Your task to perform on an android device: Do I have any events today? Image 0: 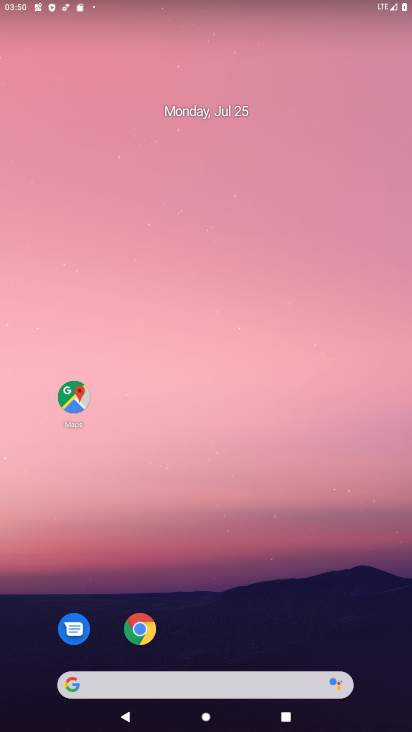
Step 0: drag from (278, 625) to (287, 6)
Your task to perform on an android device: Do I have any events today? Image 1: 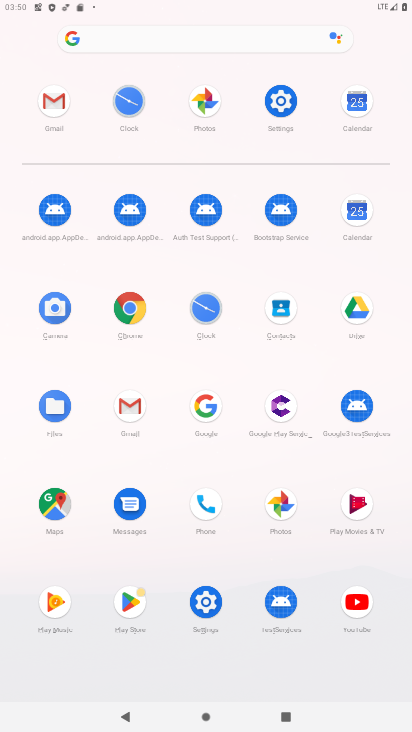
Step 1: click (349, 136)
Your task to perform on an android device: Do I have any events today? Image 2: 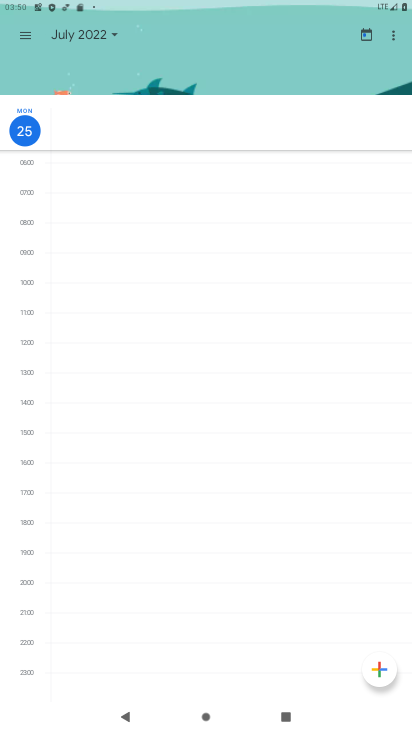
Step 2: task complete